Your task to perform on an android device: Open notification settings Image 0: 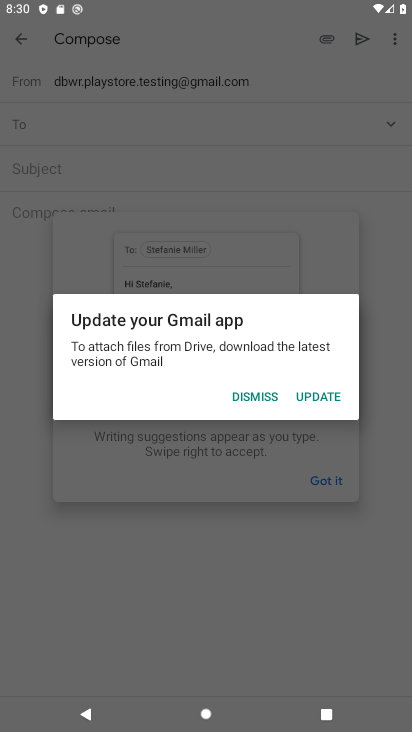
Step 0: press home button
Your task to perform on an android device: Open notification settings Image 1: 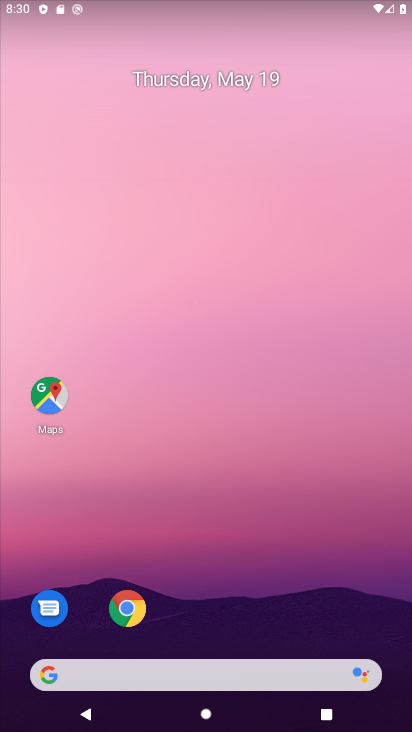
Step 1: drag from (212, 629) to (176, 147)
Your task to perform on an android device: Open notification settings Image 2: 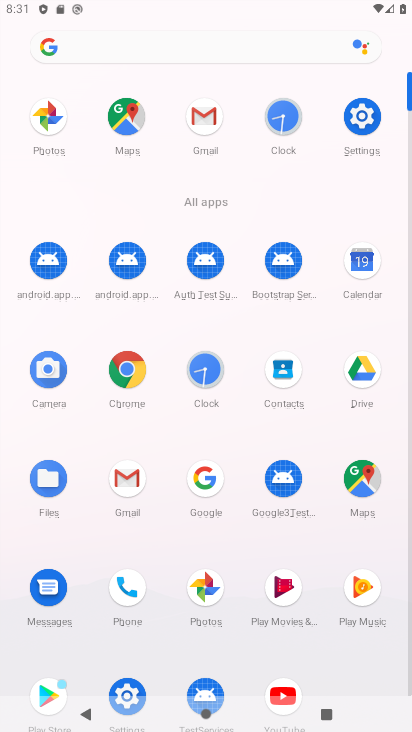
Step 2: click (368, 123)
Your task to perform on an android device: Open notification settings Image 3: 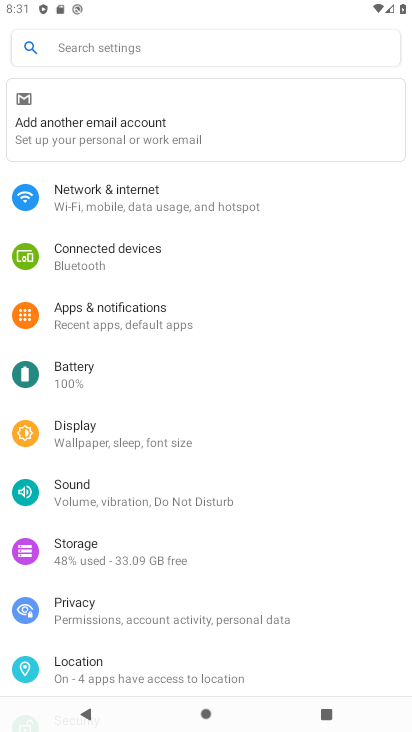
Step 3: click (106, 316)
Your task to perform on an android device: Open notification settings Image 4: 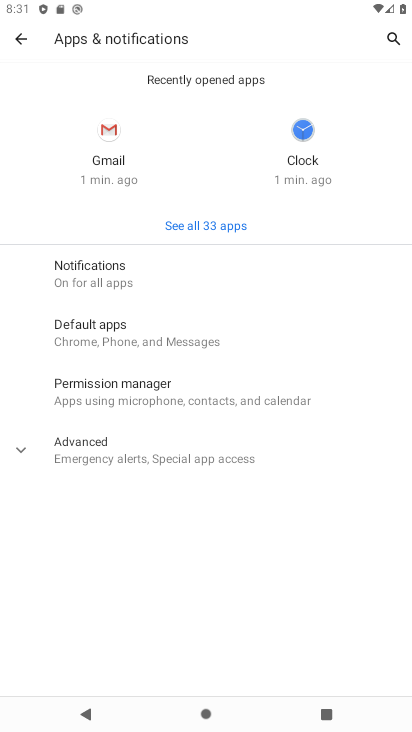
Step 4: click (85, 282)
Your task to perform on an android device: Open notification settings Image 5: 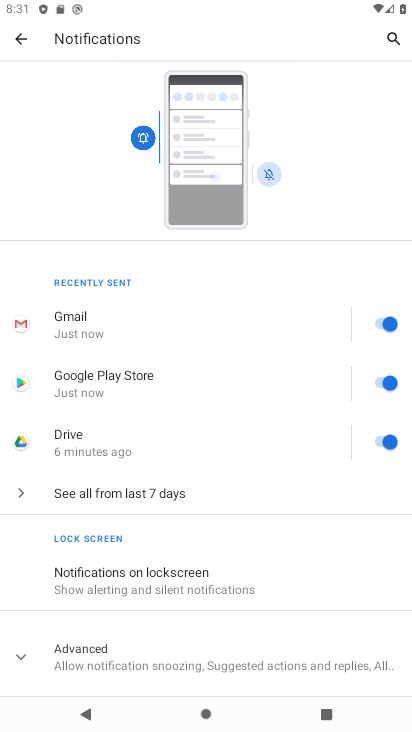
Step 5: task complete